Your task to perform on an android device: open chrome privacy settings Image 0: 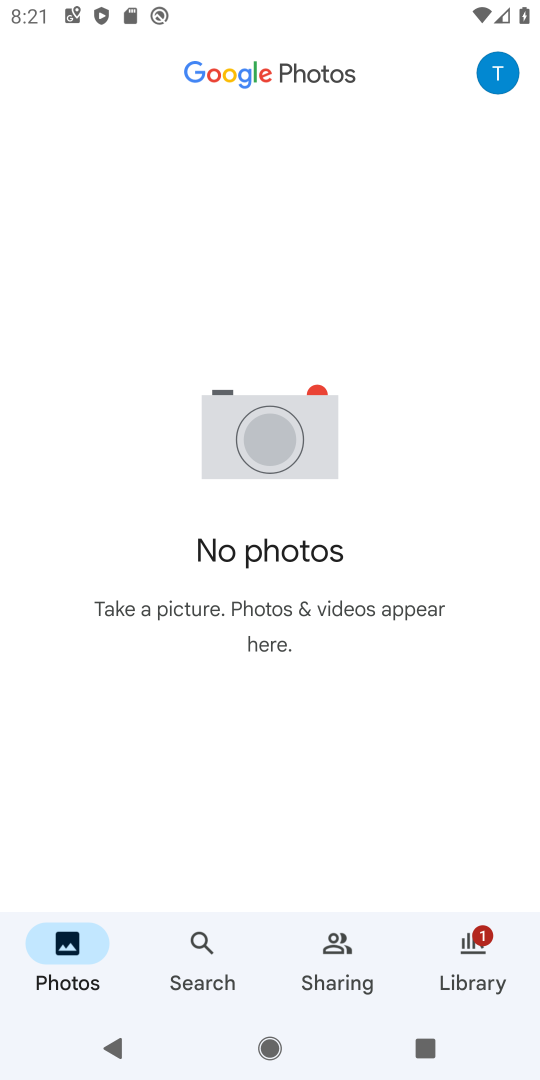
Step 0: press home button
Your task to perform on an android device: open chrome privacy settings Image 1: 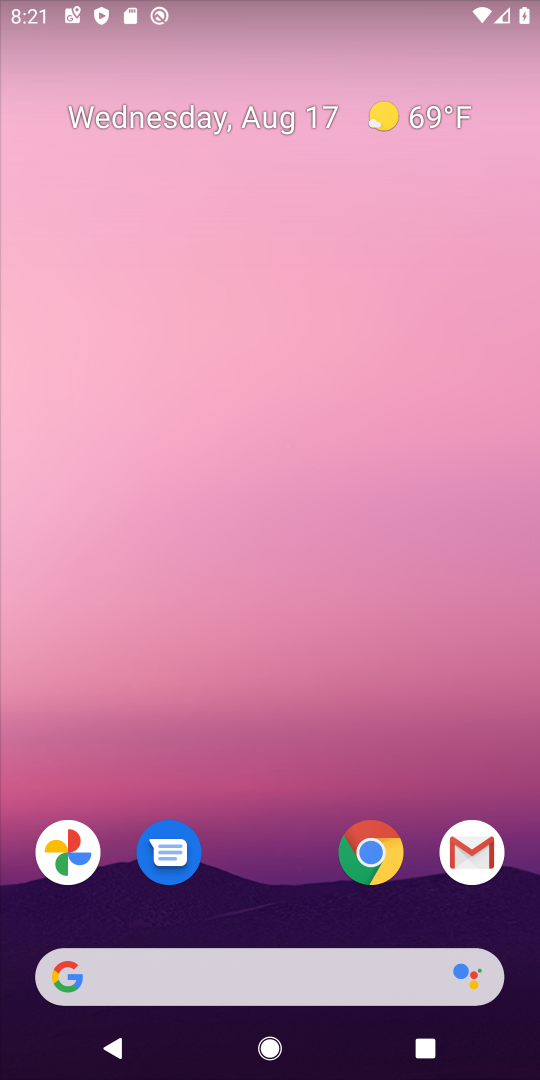
Step 1: click (372, 847)
Your task to perform on an android device: open chrome privacy settings Image 2: 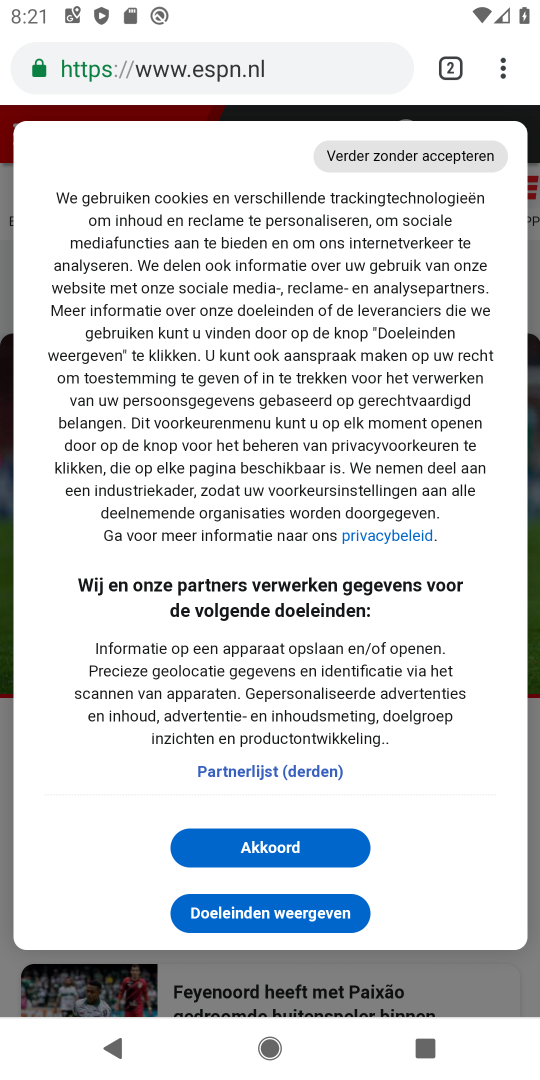
Step 2: click (372, 847)
Your task to perform on an android device: open chrome privacy settings Image 3: 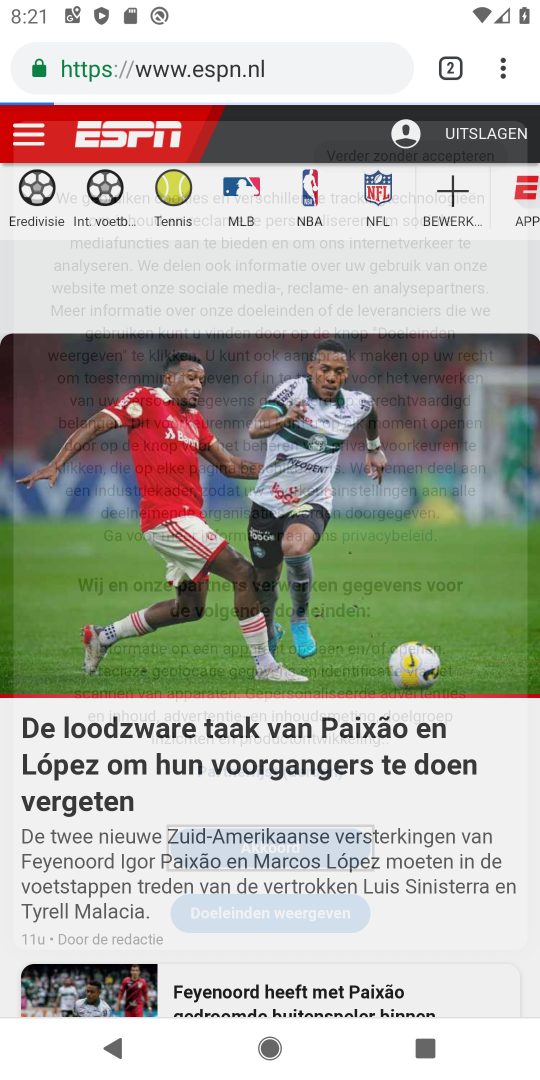
Step 3: click (499, 69)
Your task to perform on an android device: open chrome privacy settings Image 4: 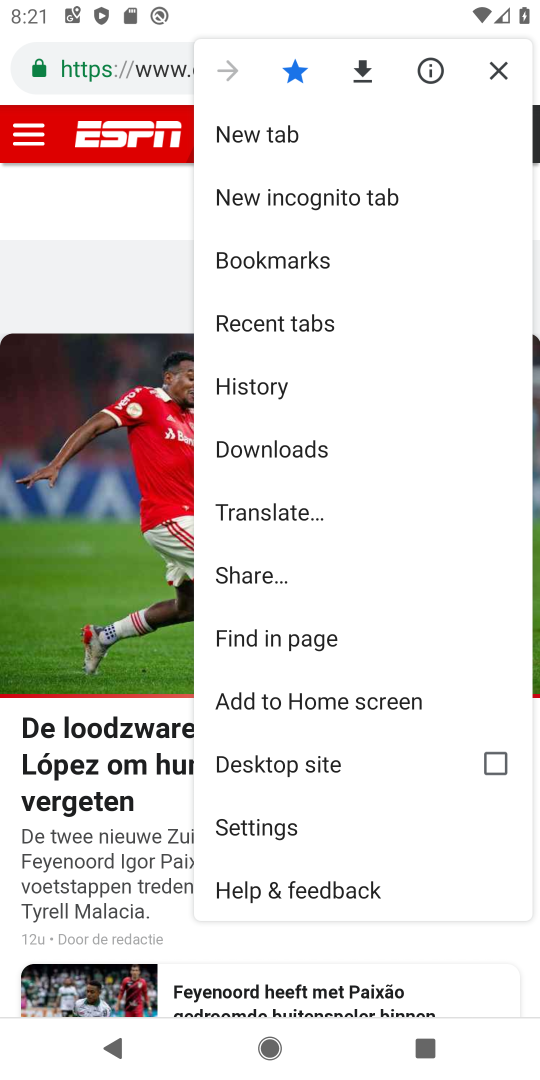
Step 4: click (243, 830)
Your task to perform on an android device: open chrome privacy settings Image 5: 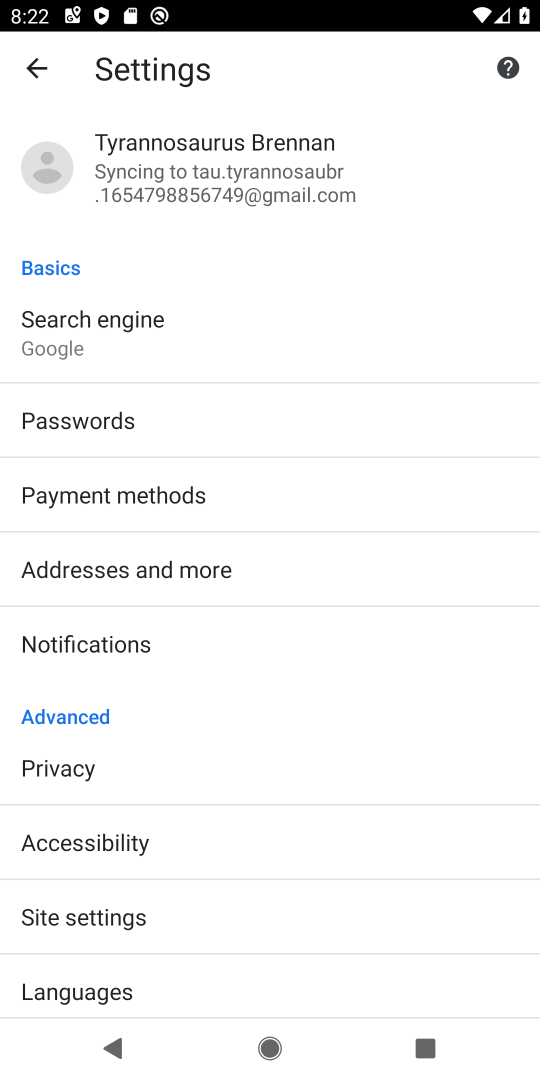
Step 5: click (58, 760)
Your task to perform on an android device: open chrome privacy settings Image 6: 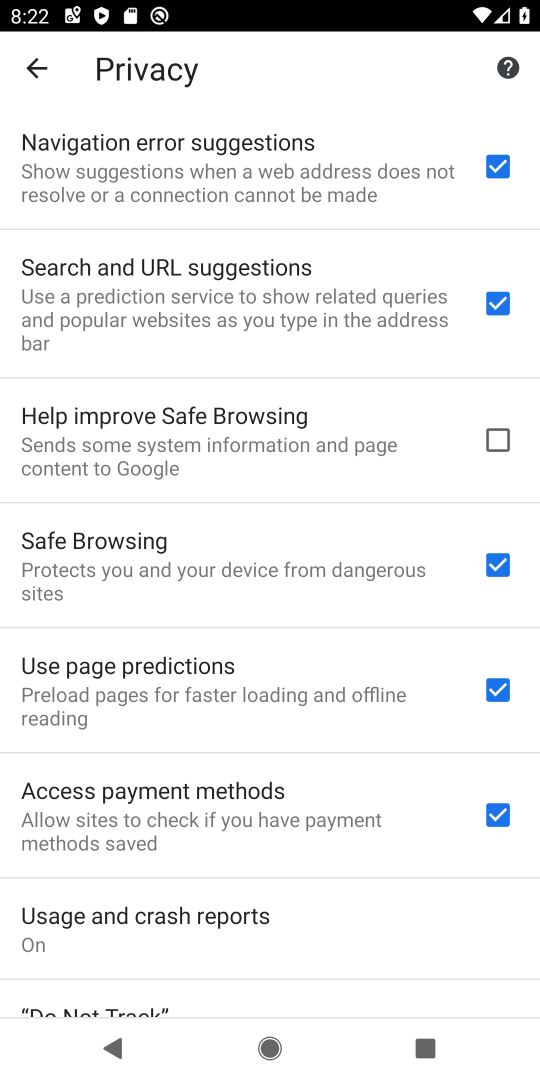
Step 6: task complete